Your task to perform on an android device: Open Reddit.com Image 0: 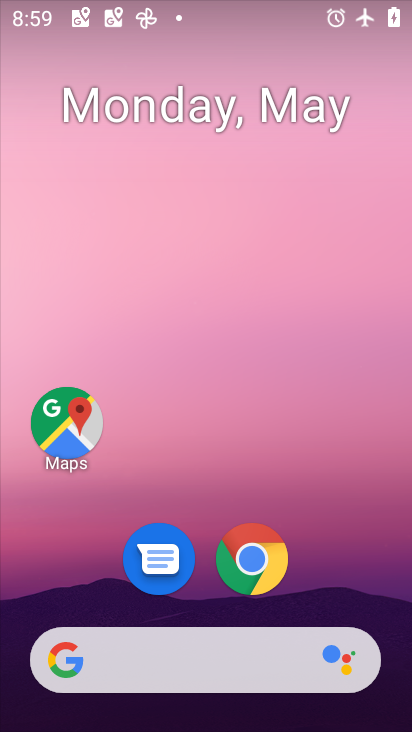
Step 0: drag from (394, 601) to (194, 9)
Your task to perform on an android device: Open Reddit.com Image 1: 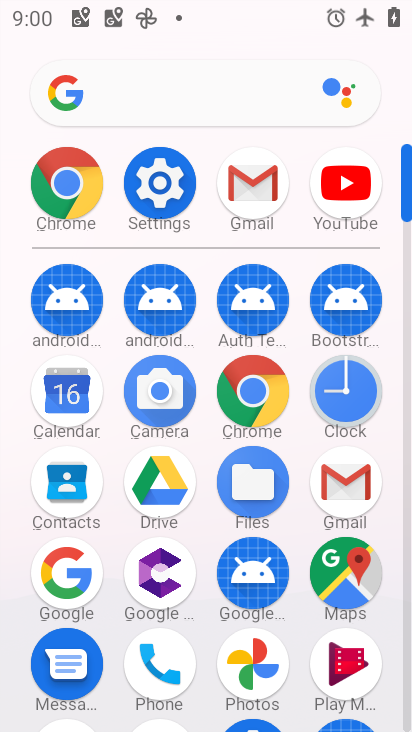
Step 1: click (244, 404)
Your task to perform on an android device: Open Reddit.com Image 2: 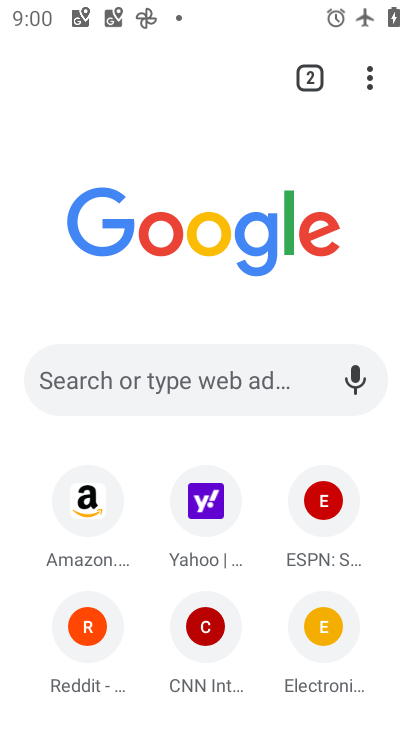
Step 2: click (85, 642)
Your task to perform on an android device: Open Reddit.com Image 3: 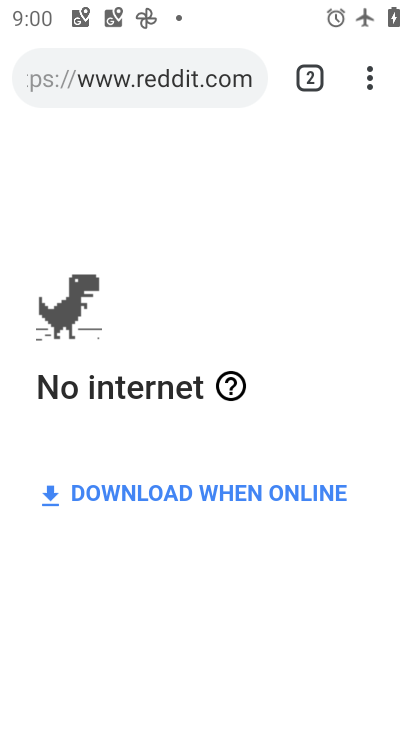
Step 3: task complete